Your task to perform on an android device: star an email in the gmail app Image 0: 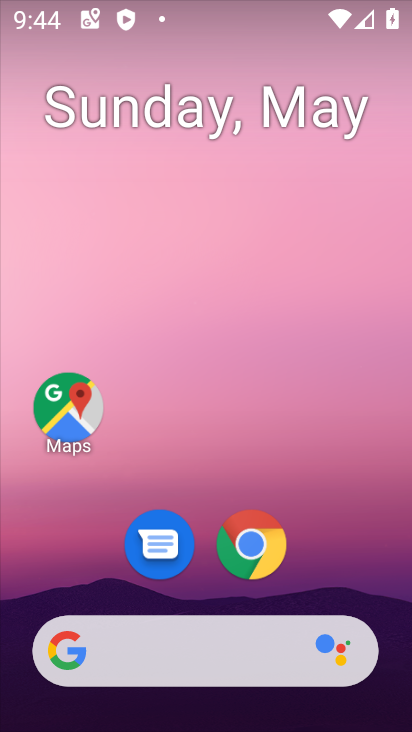
Step 0: drag from (338, 562) to (346, 2)
Your task to perform on an android device: star an email in the gmail app Image 1: 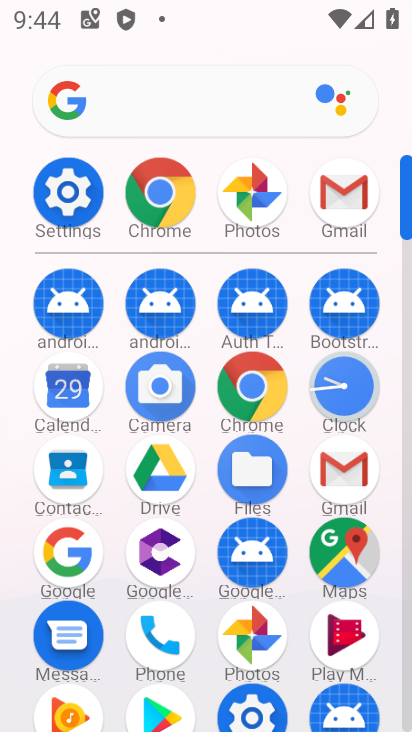
Step 1: click (368, 211)
Your task to perform on an android device: star an email in the gmail app Image 2: 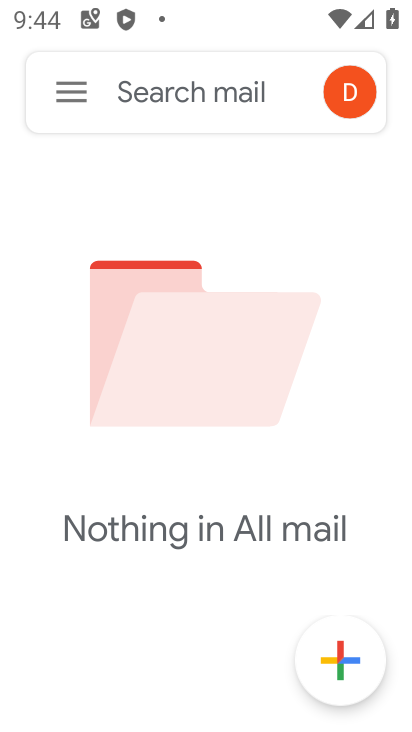
Step 2: click (64, 100)
Your task to perform on an android device: star an email in the gmail app Image 3: 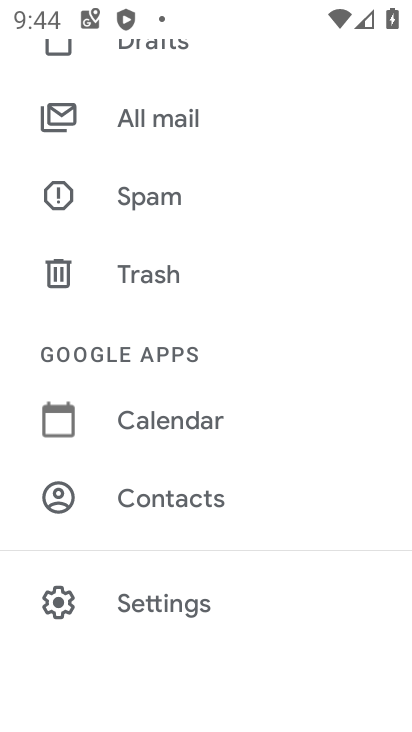
Step 3: drag from (65, 100) to (159, 632)
Your task to perform on an android device: star an email in the gmail app Image 4: 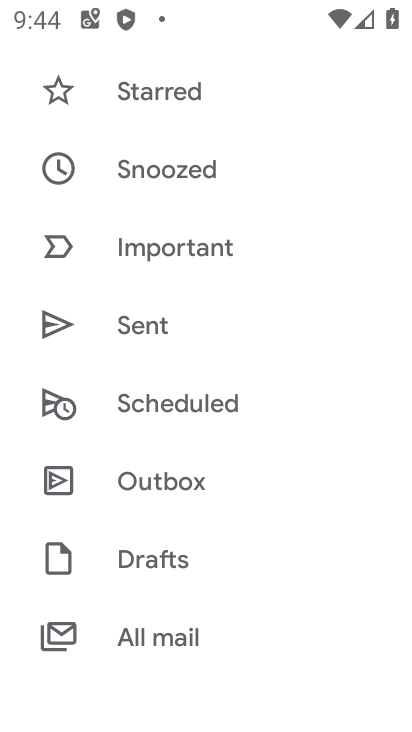
Step 4: drag from (216, 112) to (184, 619)
Your task to perform on an android device: star an email in the gmail app Image 5: 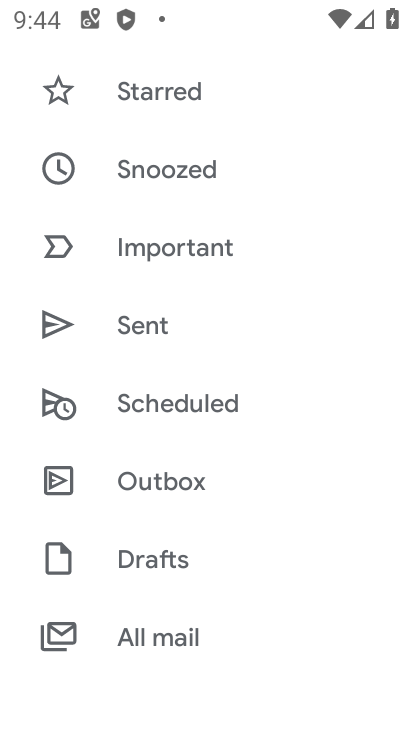
Step 5: drag from (163, 142) to (236, 591)
Your task to perform on an android device: star an email in the gmail app Image 6: 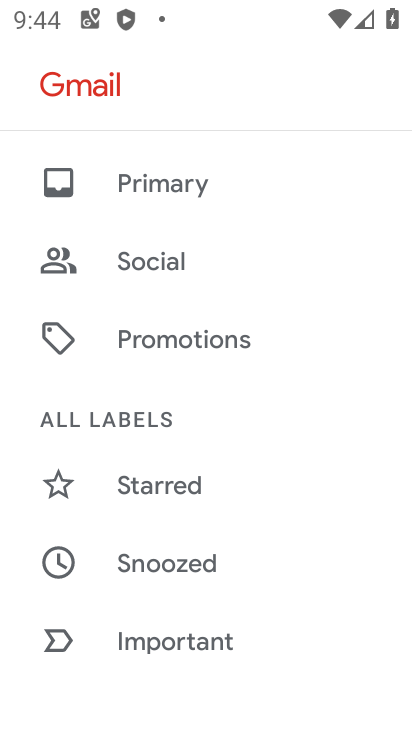
Step 6: drag from (236, 591) to (230, 83)
Your task to perform on an android device: star an email in the gmail app Image 7: 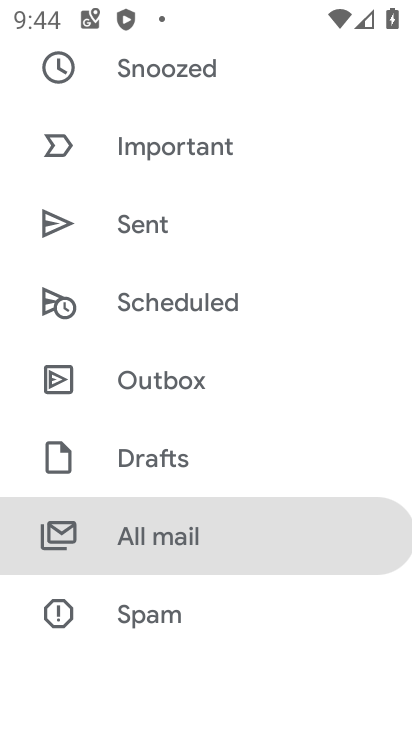
Step 7: drag from (271, 507) to (271, 157)
Your task to perform on an android device: star an email in the gmail app Image 8: 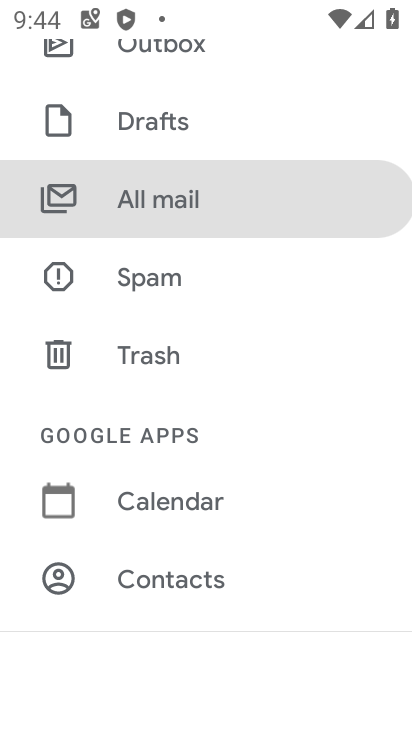
Step 8: click (202, 199)
Your task to perform on an android device: star an email in the gmail app Image 9: 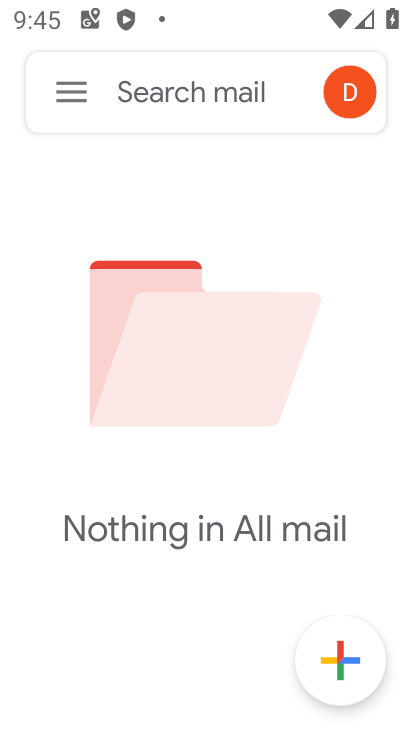
Step 9: task complete